Your task to perform on an android device: all mails in gmail Image 0: 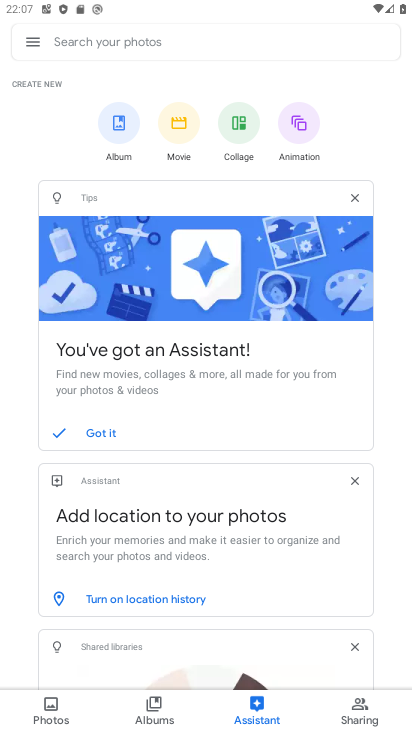
Step 0: press home button
Your task to perform on an android device: all mails in gmail Image 1: 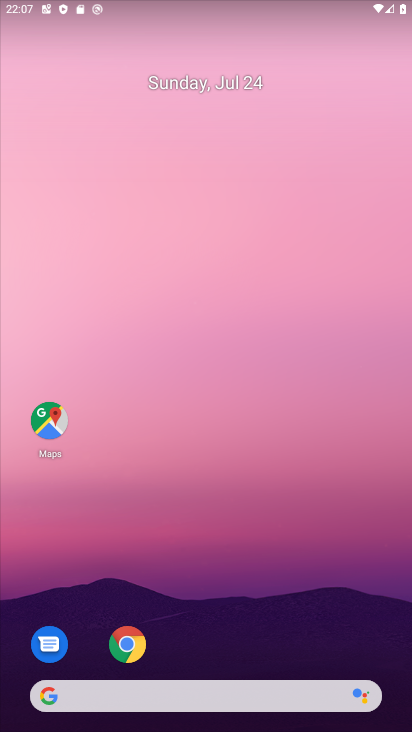
Step 1: drag from (367, 647) to (341, 44)
Your task to perform on an android device: all mails in gmail Image 2: 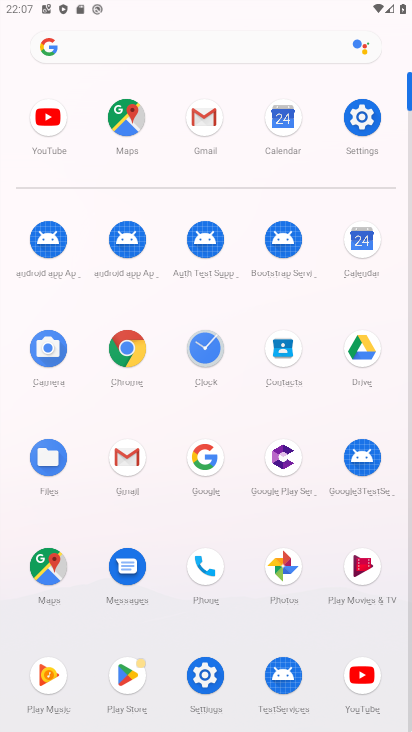
Step 2: click (127, 456)
Your task to perform on an android device: all mails in gmail Image 3: 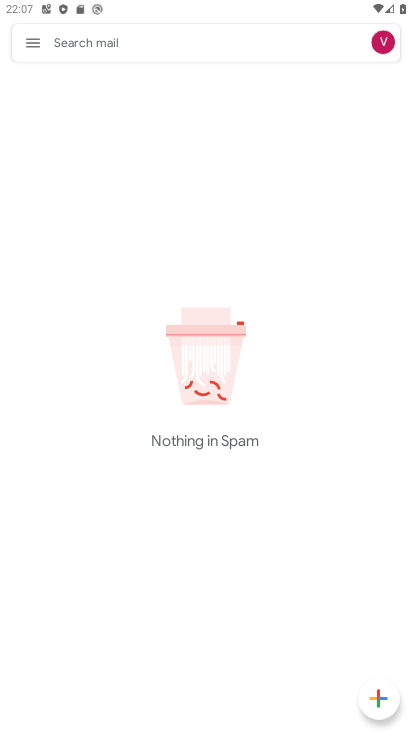
Step 3: click (38, 44)
Your task to perform on an android device: all mails in gmail Image 4: 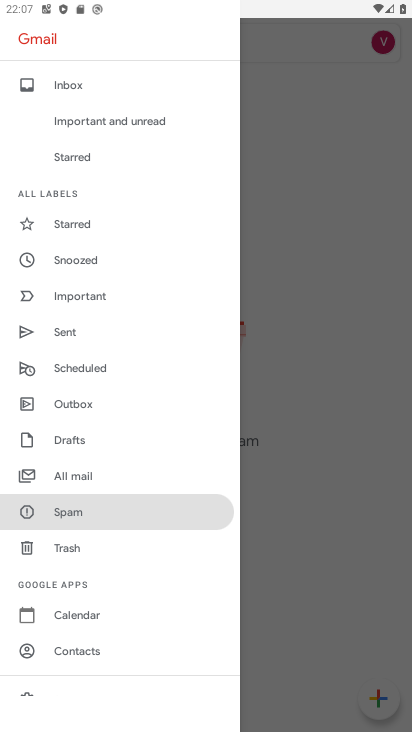
Step 4: click (71, 468)
Your task to perform on an android device: all mails in gmail Image 5: 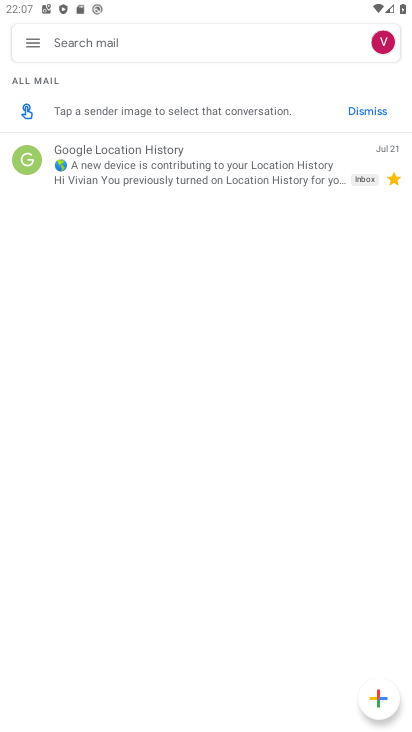
Step 5: task complete